Your task to perform on an android device: check google app version Image 0: 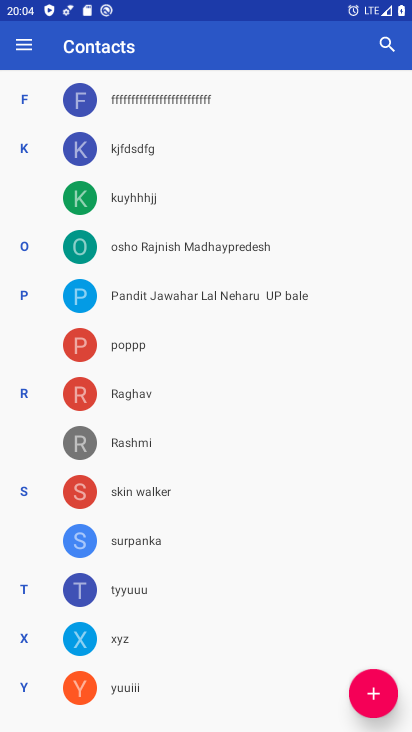
Step 0: press home button
Your task to perform on an android device: check google app version Image 1: 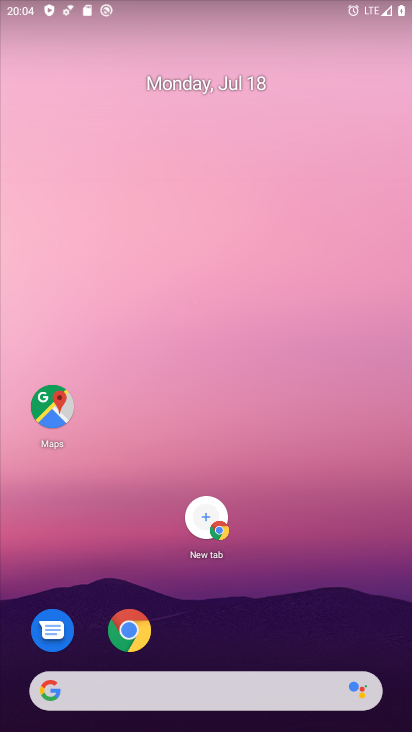
Step 1: drag from (212, 664) to (217, 276)
Your task to perform on an android device: check google app version Image 2: 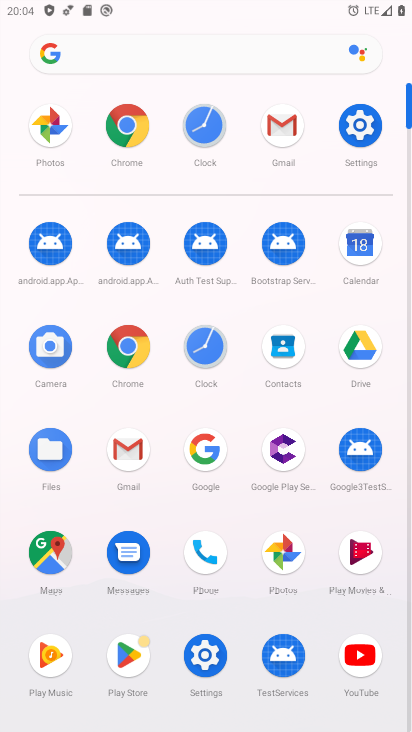
Step 2: click (210, 440)
Your task to perform on an android device: check google app version Image 3: 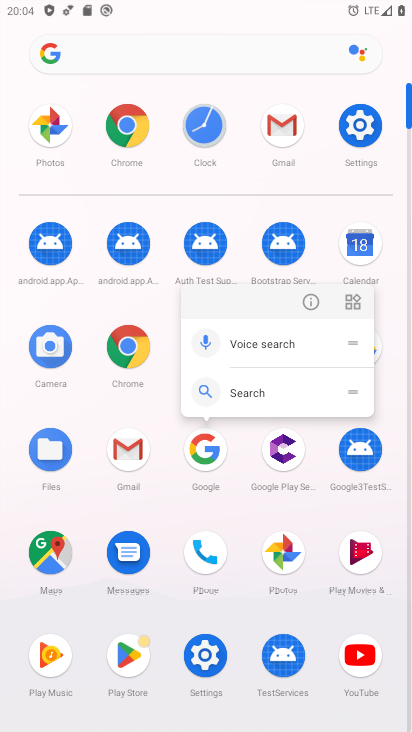
Step 3: click (317, 299)
Your task to perform on an android device: check google app version Image 4: 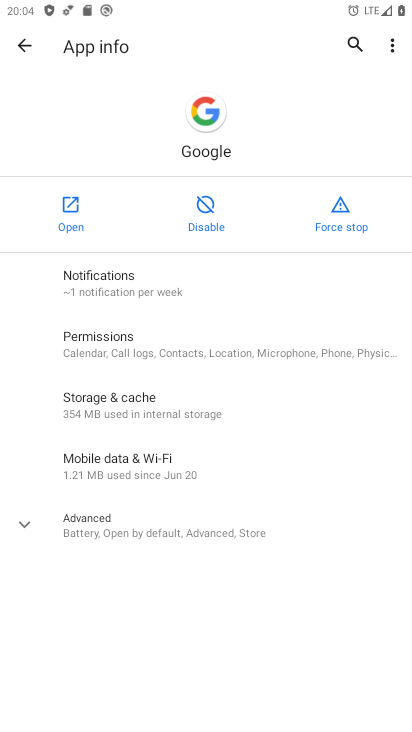
Step 4: click (79, 520)
Your task to perform on an android device: check google app version Image 5: 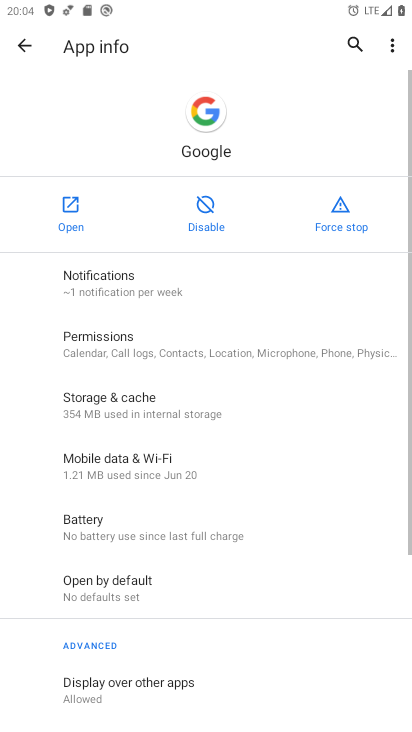
Step 5: task complete